Your task to perform on an android device: delete location history Image 0: 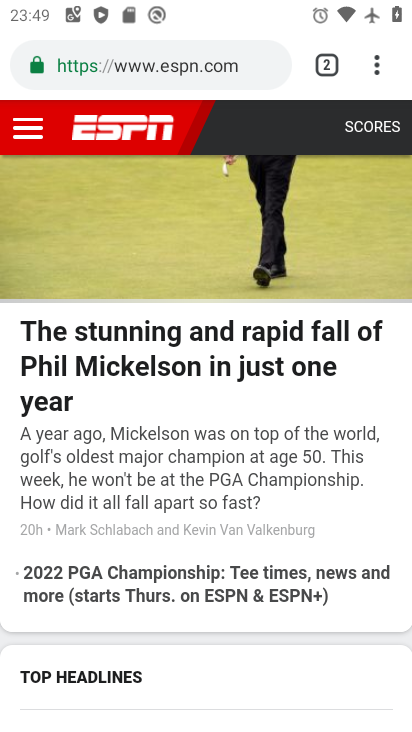
Step 0: press back button
Your task to perform on an android device: delete location history Image 1: 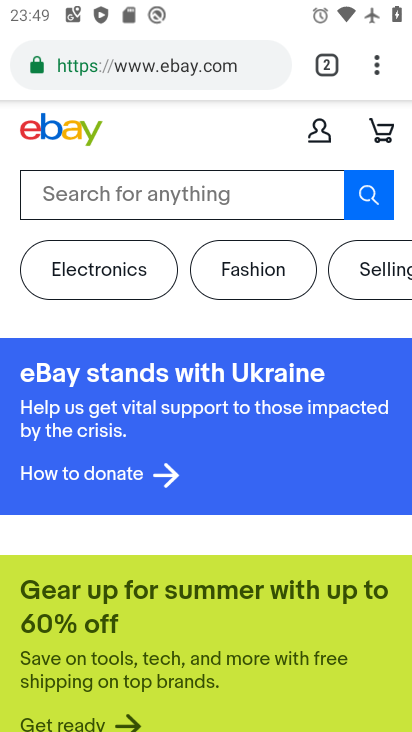
Step 1: press home button
Your task to perform on an android device: delete location history Image 2: 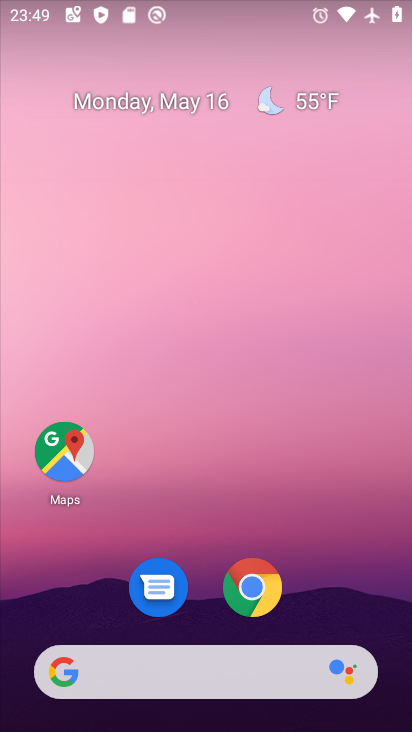
Step 2: drag from (354, 568) to (263, 24)
Your task to perform on an android device: delete location history Image 3: 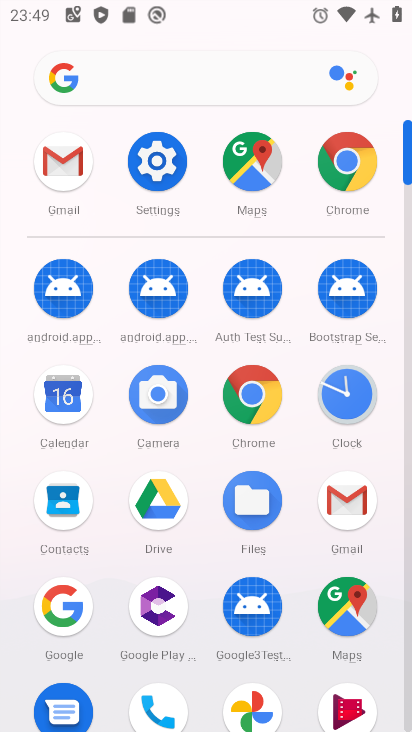
Step 3: click (158, 158)
Your task to perform on an android device: delete location history Image 4: 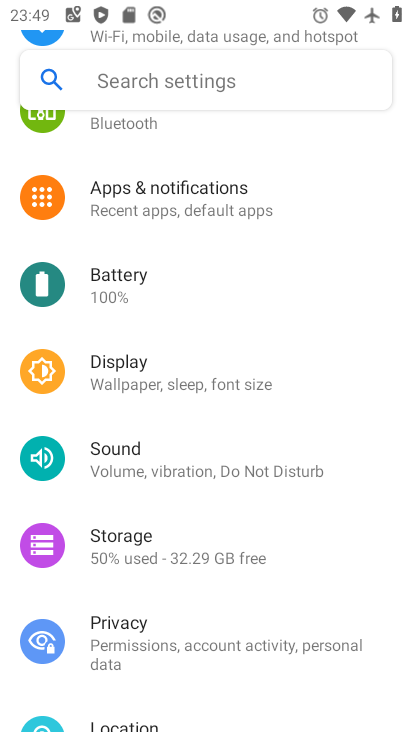
Step 4: drag from (237, 601) to (217, 199)
Your task to perform on an android device: delete location history Image 5: 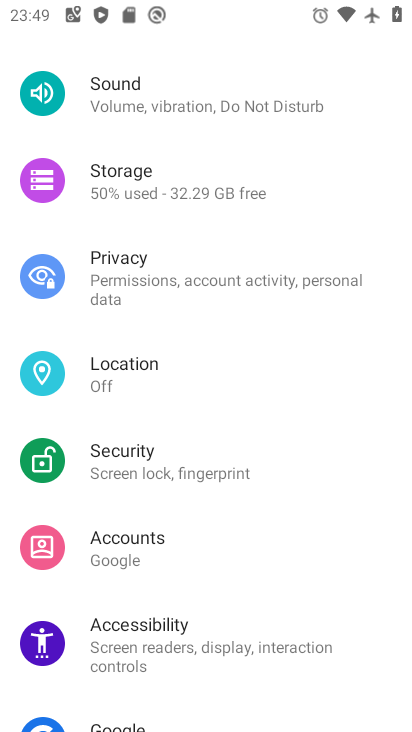
Step 5: click (131, 385)
Your task to perform on an android device: delete location history Image 6: 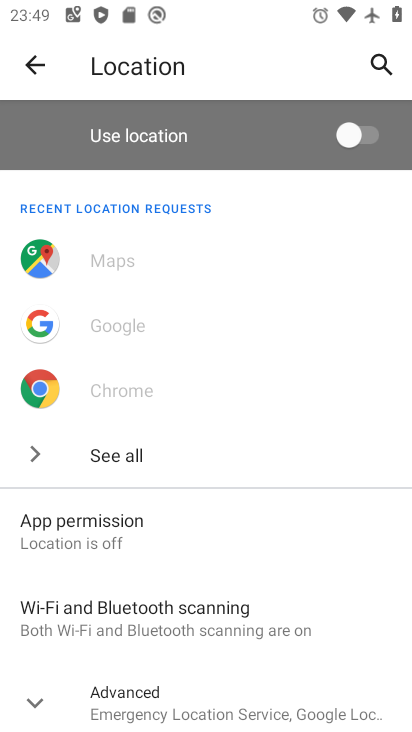
Step 6: drag from (224, 588) to (252, 105)
Your task to perform on an android device: delete location history Image 7: 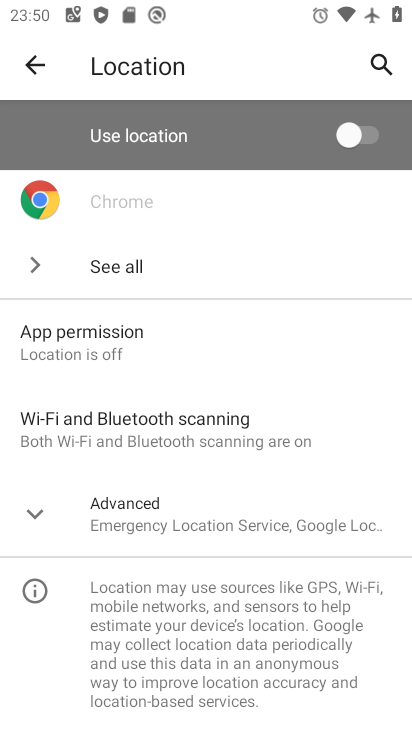
Step 7: click (191, 500)
Your task to perform on an android device: delete location history Image 8: 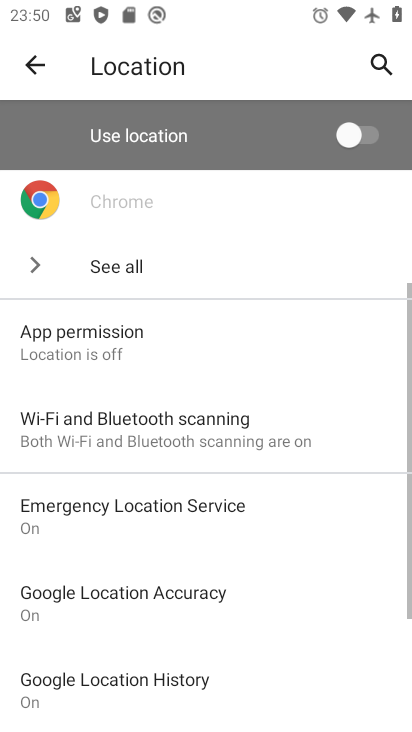
Step 8: drag from (232, 582) to (209, 235)
Your task to perform on an android device: delete location history Image 9: 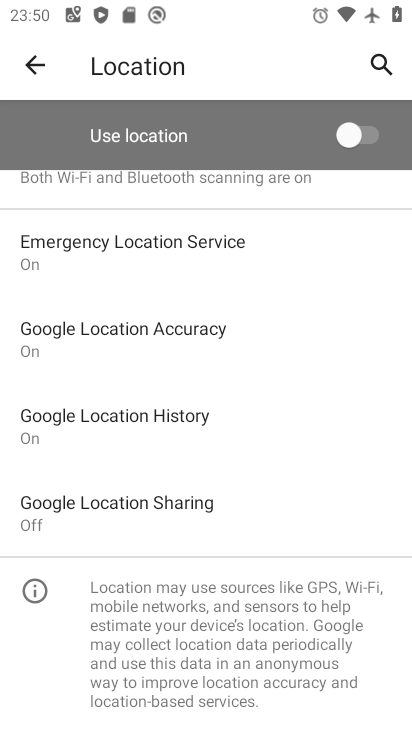
Step 9: click (152, 423)
Your task to perform on an android device: delete location history Image 10: 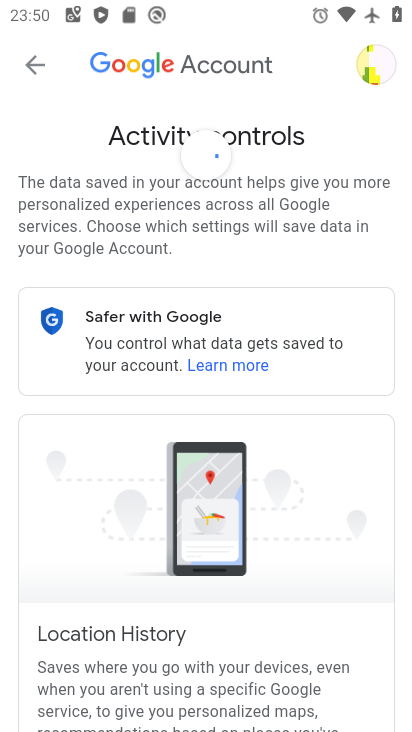
Step 10: drag from (286, 586) to (246, 109)
Your task to perform on an android device: delete location history Image 11: 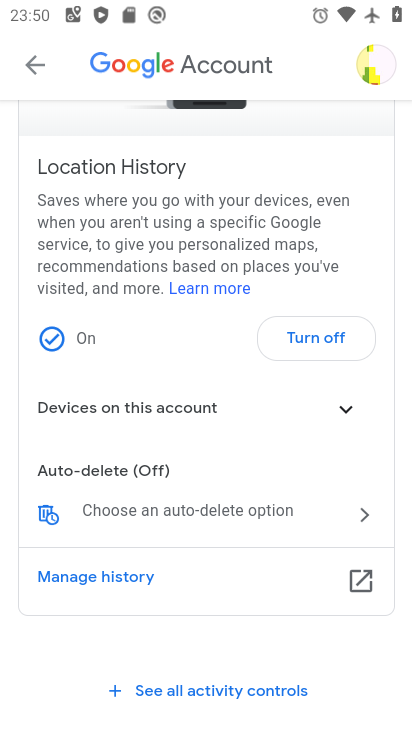
Step 11: drag from (203, 546) to (157, 150)
Your task to perform on an android device: delete location history Image 12: 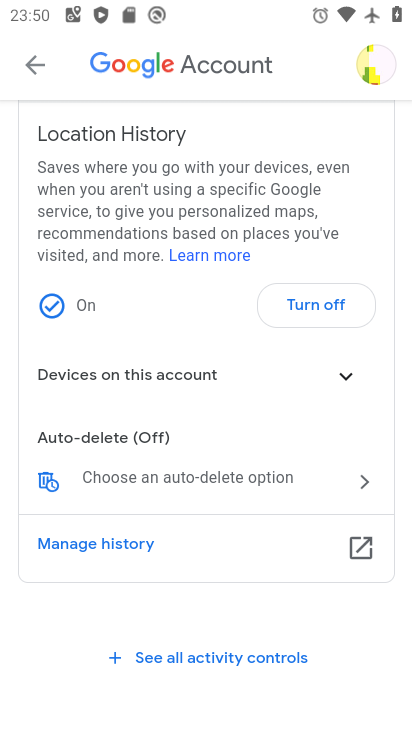
Step 12: drag from (157, 148) to (142, 606)
Your task to perform on an android device: delete location history Image 13: 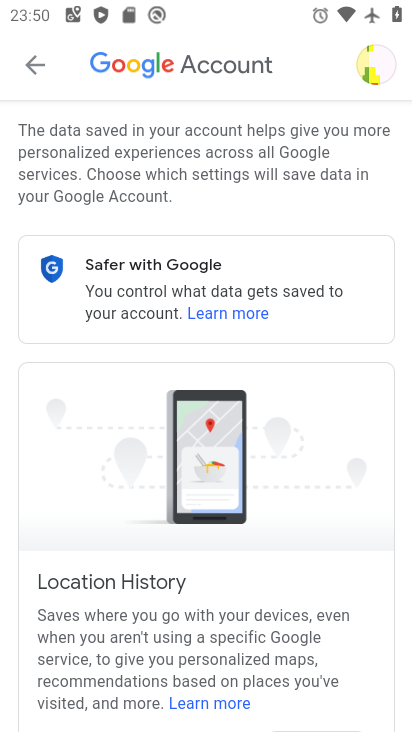
Step 13: drag from (142, 340) to (141, 644)
Your task to perform on an android device: delete location history Image 14: 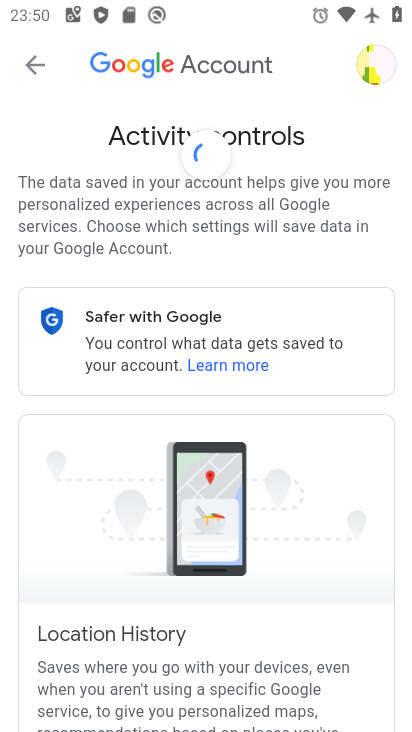
Step 14: drag from (263, 515) to (268, 160)
Your task to perform on an android device: delete location history Image 15: 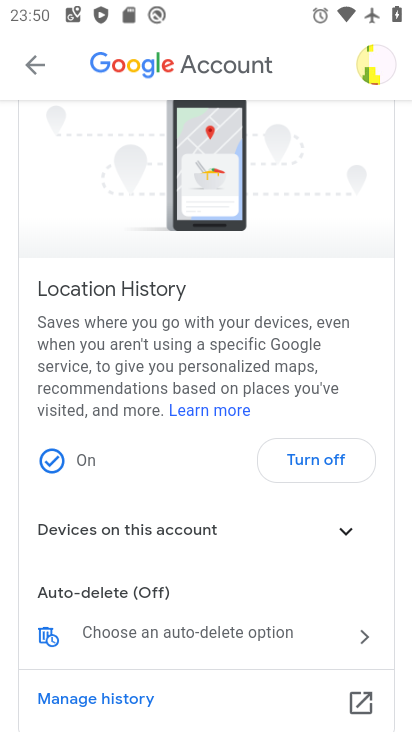
Step 15: drag from (195, 488) to (229, 171)
Your task to perform on an android device: delete location history Image 16: 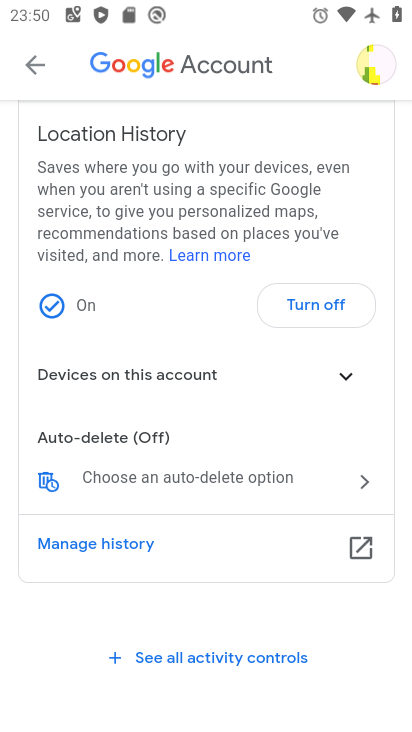
Step 16: click (135, 488)
Your task to perform on an android device: delete location history Image 17: 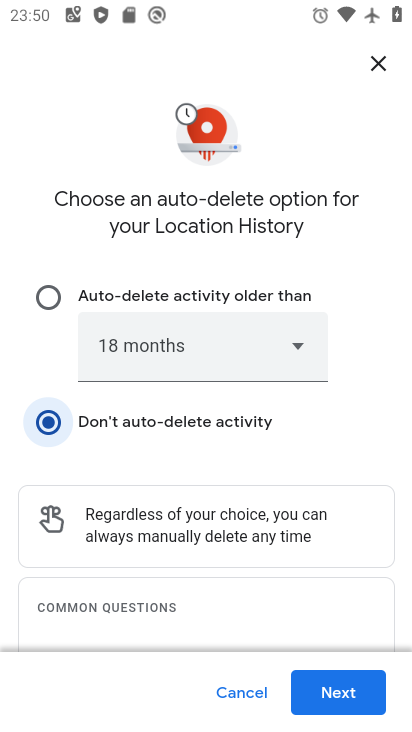
Step 17: click (326, 681)
Your task to perform on an android device: delete location history Image 18: 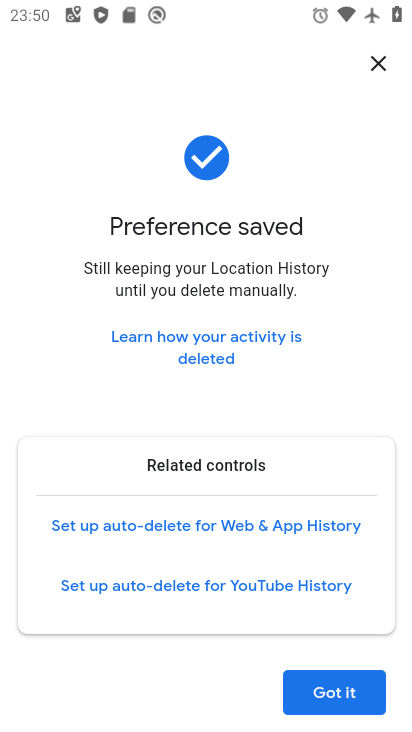
Step 18: task complete